Your task to perform on an android device: Open network settings Image 0: 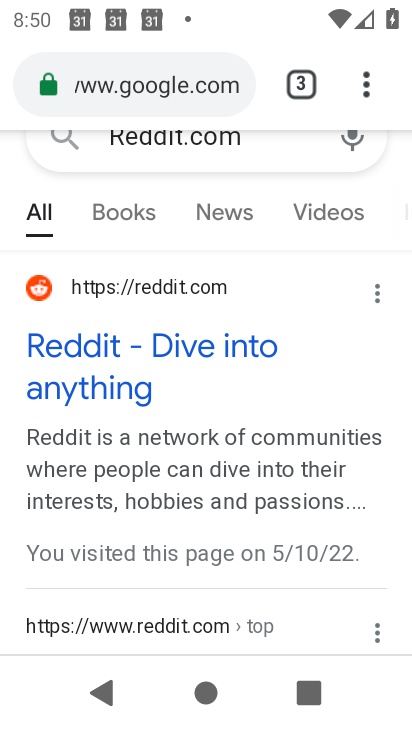
Step 0: press home button
Your task to perform on an android device: Open network settings Image 1: 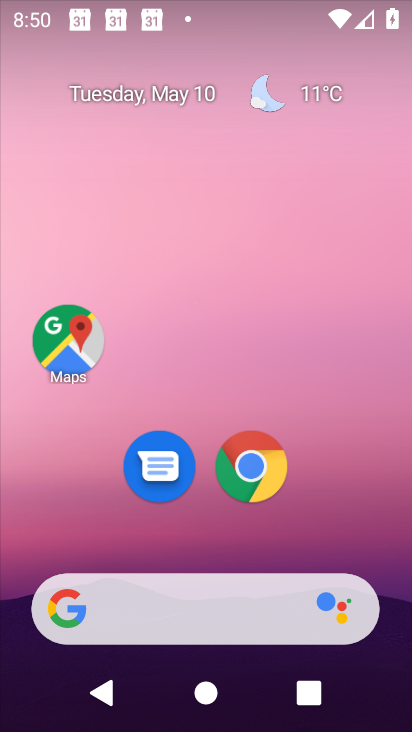
Step 1: drag from (204, 537) to (255, 7)
Your task to perform on an android device: Open network settings Image 2: 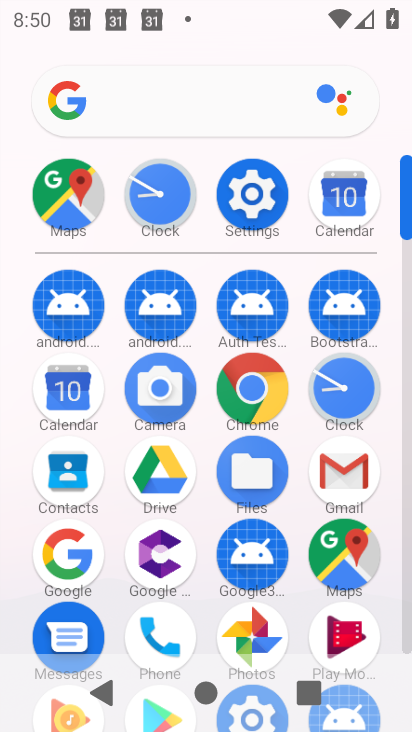
Step 2: click (250, 191)
Your task to perform on an android device: Open network settings Image 3: 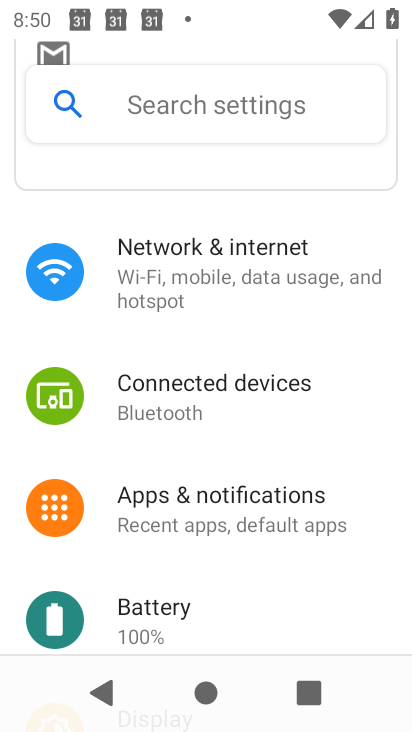
Step 3: click (188, 303)
Your task to perform on an android device: Open network settings Image 4: 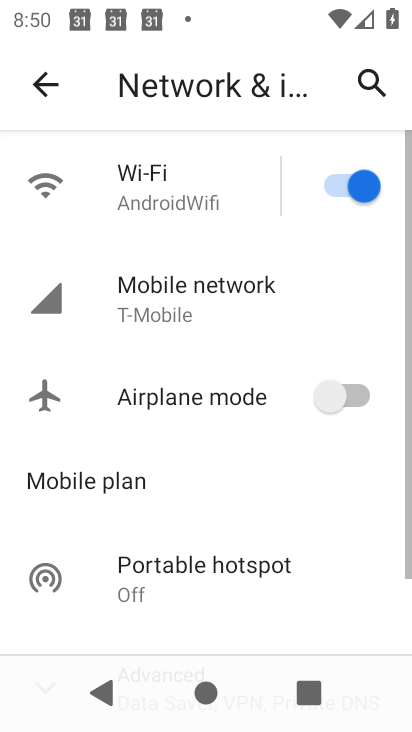
Step 4: task complete